Your task to perform on an android device: snooze an email in the gmail app Image 0: 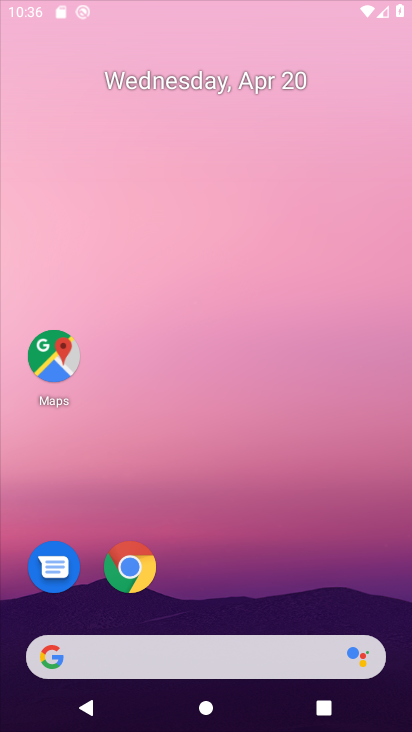
Step 0: click (131, 532)
Your task to perform on an android device: snooze an email in the gmail app Image 1: 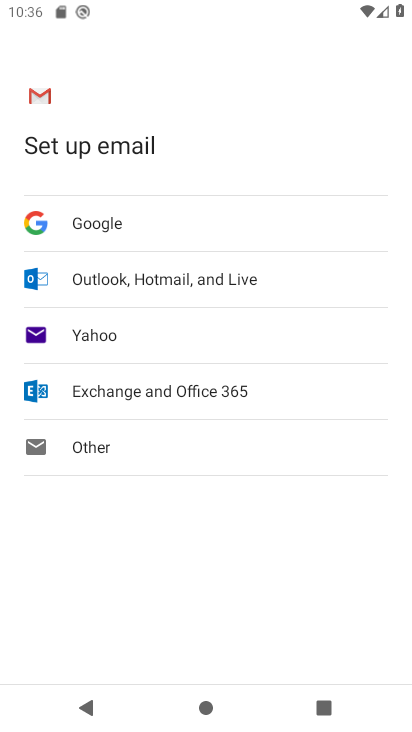
Step 1: press home button
Your task to perform on an android device: snooze an email in the gmail app Image 2: 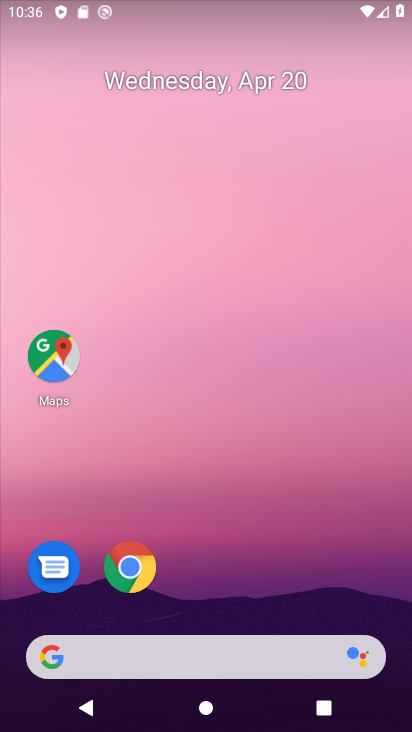
Step 2: drag from (219, 615) to (220, 85)
Your task to perform on an android device: snooze an email in the gmail app Image 3: 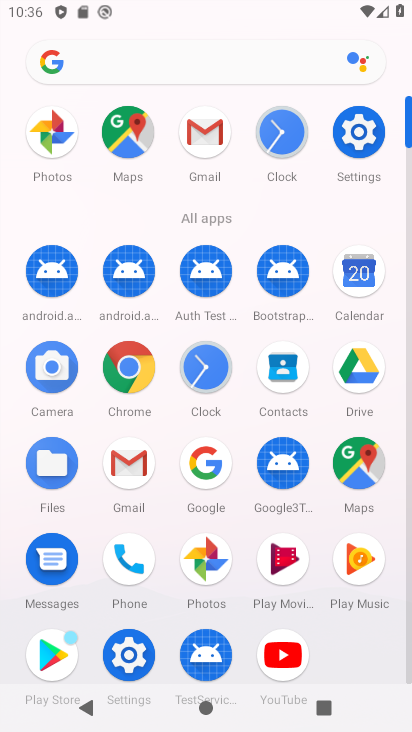
Step 3: click (111, 452)
Your task to perform on an android device: snooze an email in the gmail app Image 4: 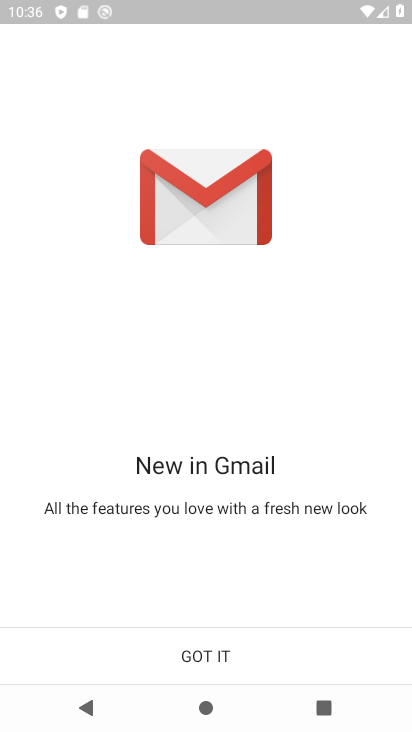
Step 4: click (217, 637)
Your task to perform on an android device: snooze an email in the gmail app Image 5: 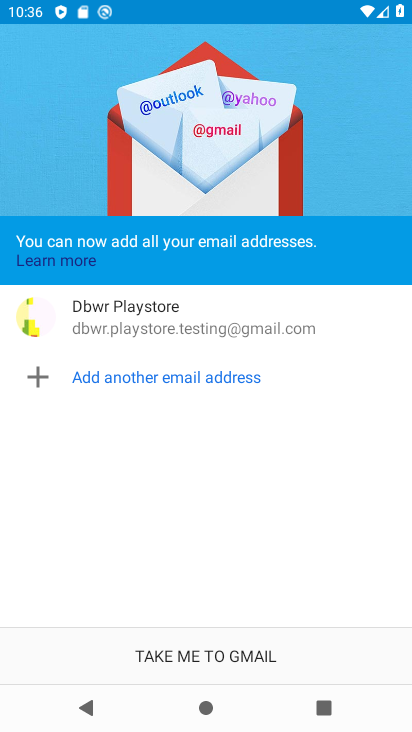
Step 5: click (223, 659)
Your task to perform on an android device: snooze an email in the gmail app Image 6: 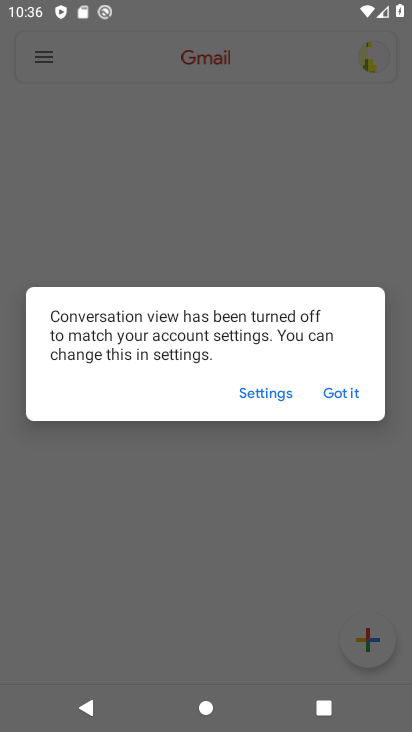
Step 6: click (345, 391)
Your task to perform on an android device: snooze an email in the gmail app Image 7: 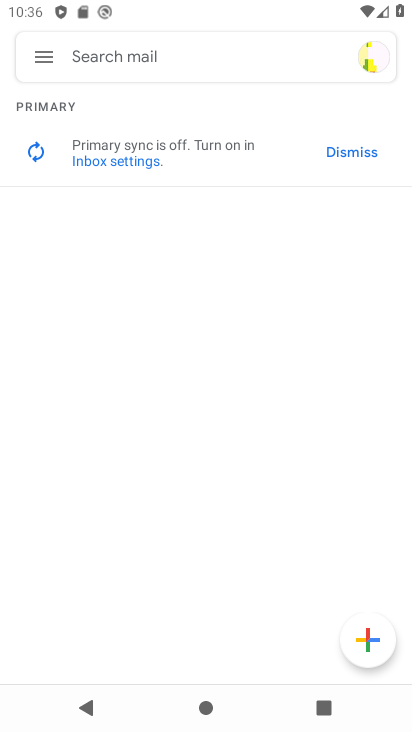
Step 7: click (49, 55)
Your task to perform on an android device: snooze an email in the gmail app Image 8: 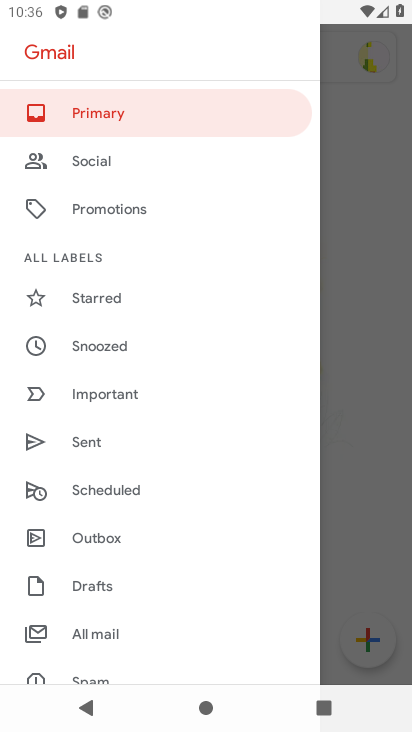
Step 8: click (104, 125)
Your task to perform on an android device: snooze an email in the gmail app Image 9: 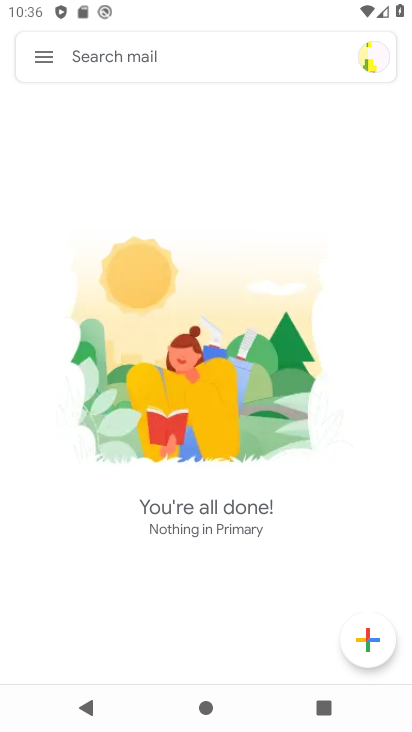
Step 9: click (32, 58)
Your task to perform on an android device: snooze an email in the gmail app Image 10: 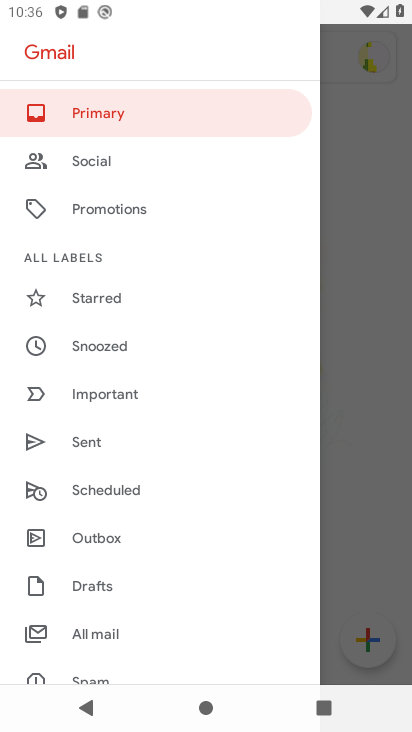
Step 10: task complete